Your task to perform on an android device: toggle improve location accuracy Image 0: 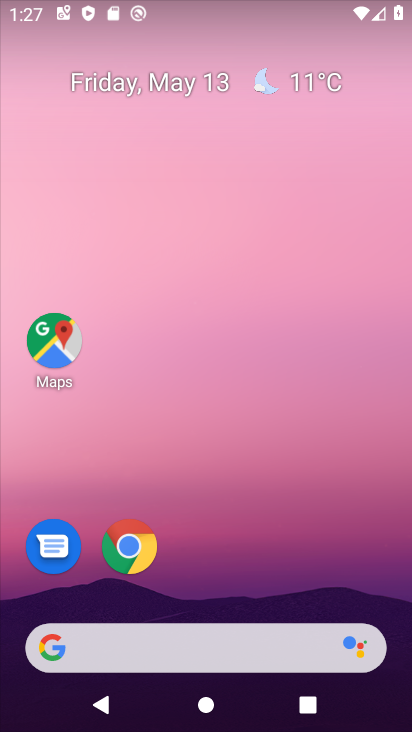
Step 0: drag from (254, 649) to (304, 77)
Your task to perform on an android device: toggle improve location accuracy Image 1: 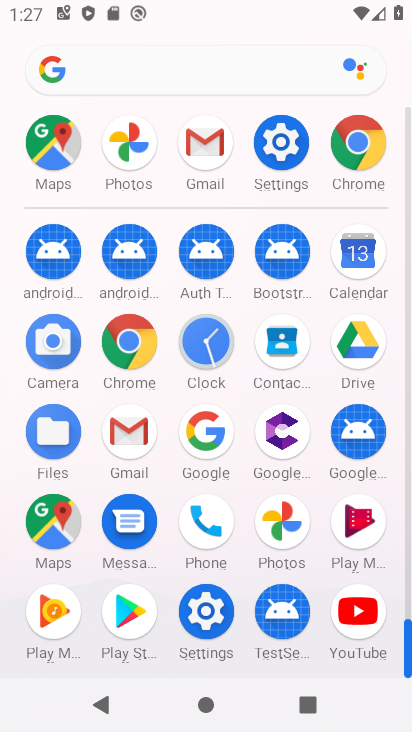
Step 1: click (303, 166)
Your task to perform on an android device: toggle improve location accuracy Image 2: 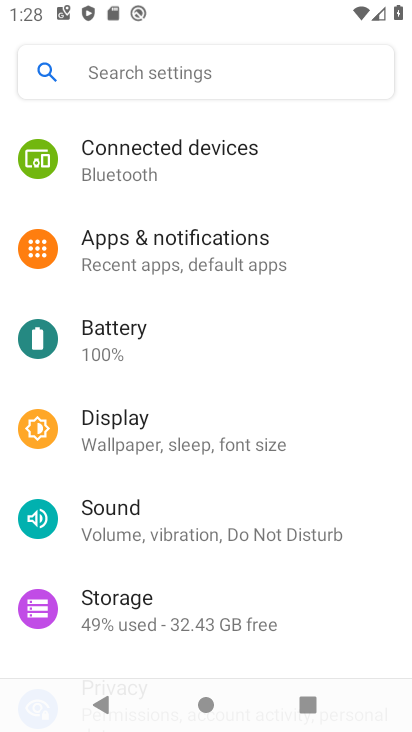
Step 2: drag from (227, 400) to (345, 0)
Your task to perform on an android device: toggle improve location accuracy Image 3: 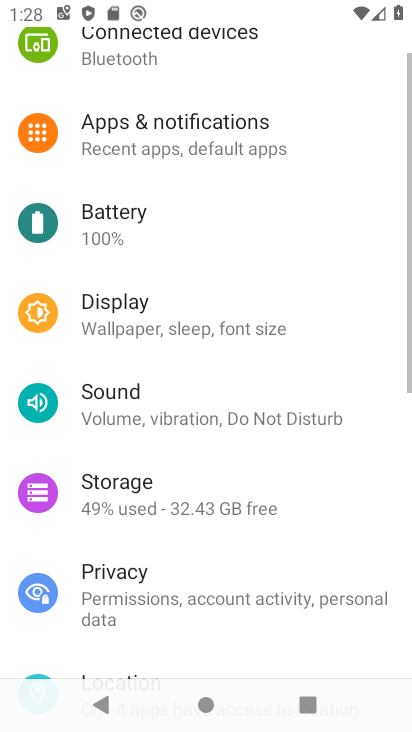
Step 3: drag from (162, 540) to (173, 194)
Your task to perform on an android device: toggle improve location accuracy Image 4: 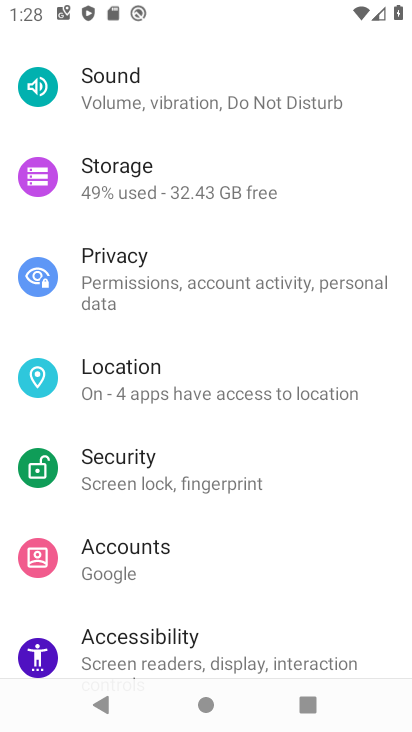
Step 4: click (160, 378)
Your task to perform on an android device: toggle improve location accuracy Image 5: 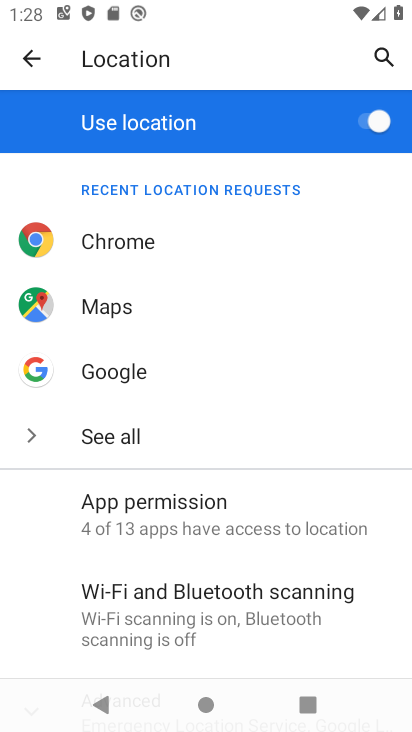
Step 5: drag from (186, 595) to (214, 115)
Your task to perform on an android device: toggle improve location accuracy Image 6: 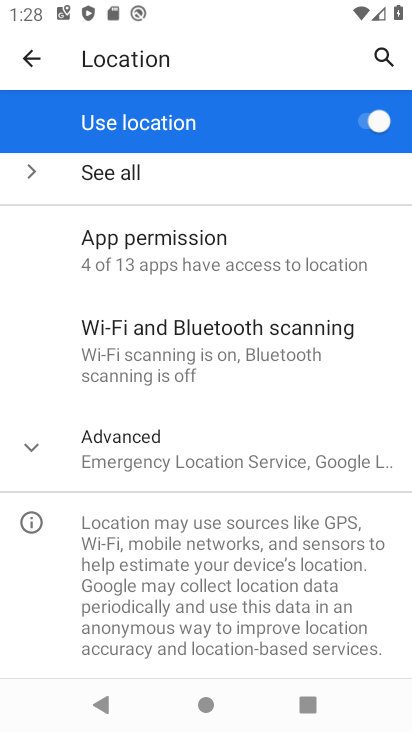
Step 6: click (212, 472)
Your task to perform on an android device: toggle improve location accuracy Image 7: 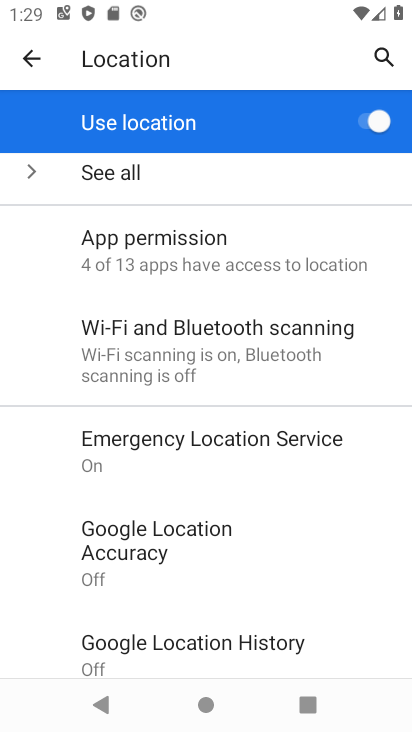
Step 7: click (146, 537)
Your task to perform on an android device: toggle improve location accuracy Image 8: 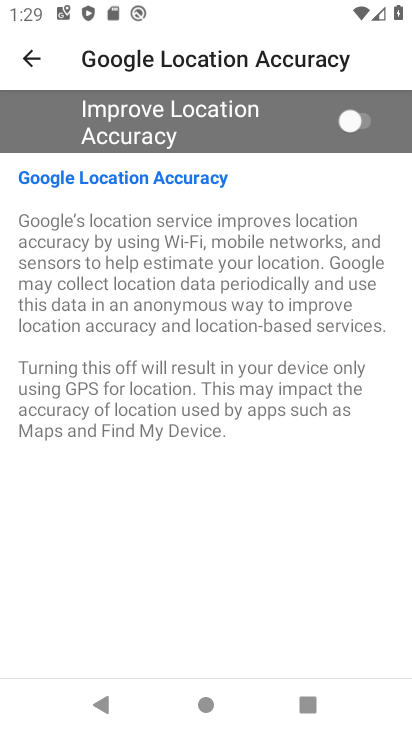
Step 8: click (372, 120)
Your task to perform on an android device: toggle improve location accuracy Image 9: 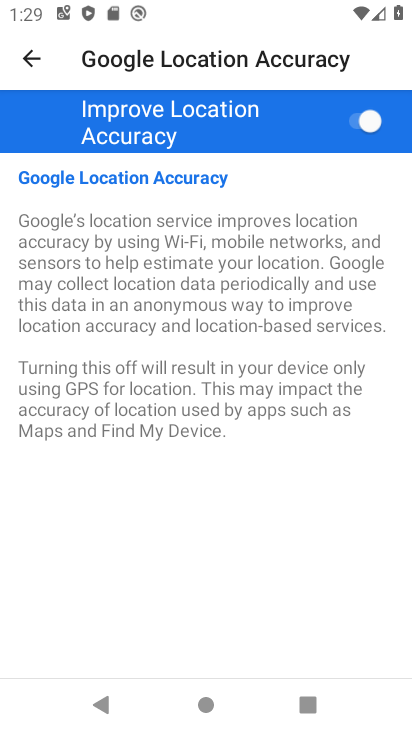
Step 9: task complete